Your task to perform on an android device: Open the stopwatch Image 0: 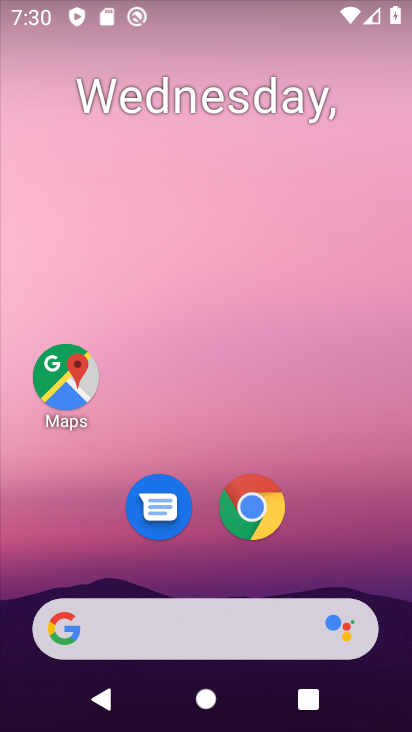
Step 0: drag from (257, 657) to (279, 157)
Your task to perform on an android device: Open the stopwatch Image 1: 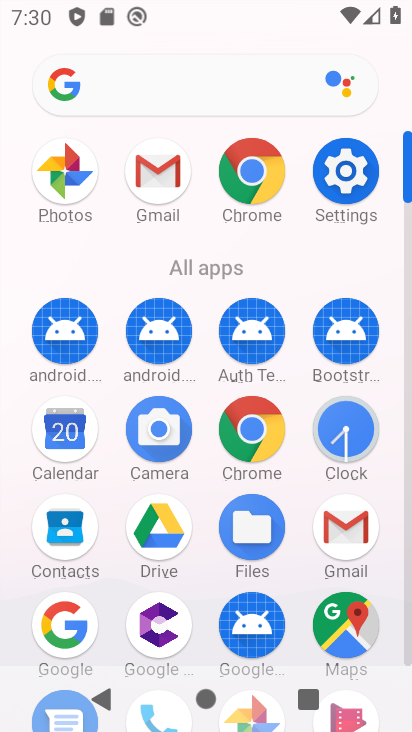
Step 1: click (332, 421)
Your task to perform on an android device: Open the stopwatch Image 2: 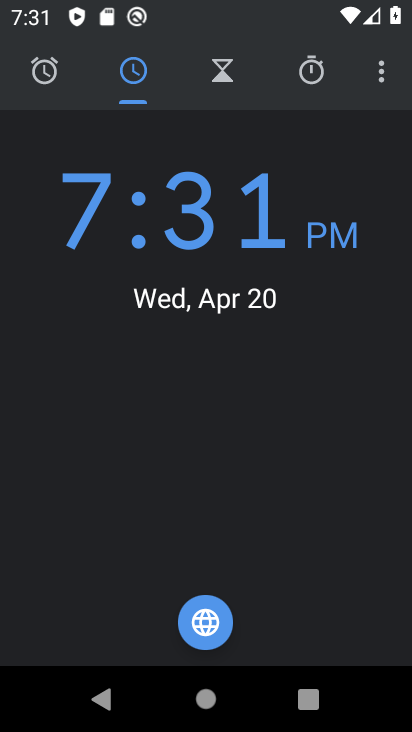
Step 2: click (309, 81)
Your task to perform on an android device: Open the stopwatch Image 3: 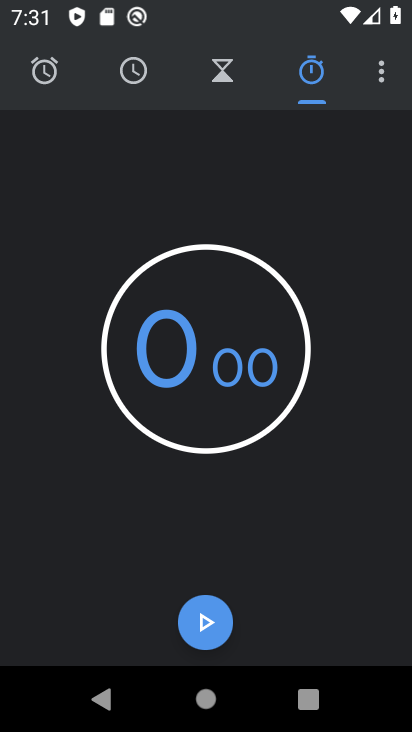
Step 3: click (195, 627)
Your task to perform on an android device: Open the stopwatch Image 4: 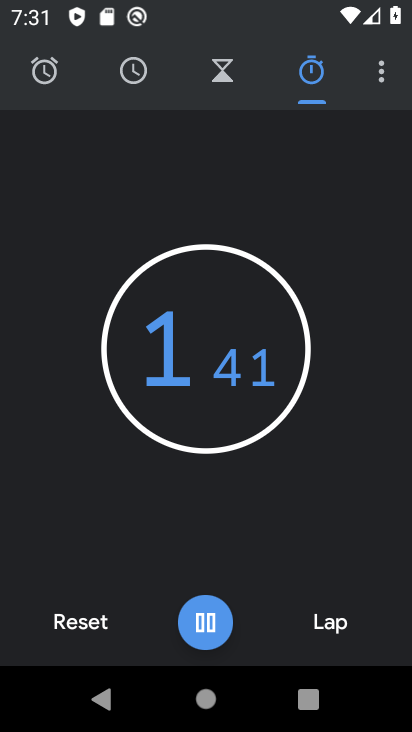
Step 4: click (211, 626)
Your task to perform on an android device: Open the stopwatch Image 5: 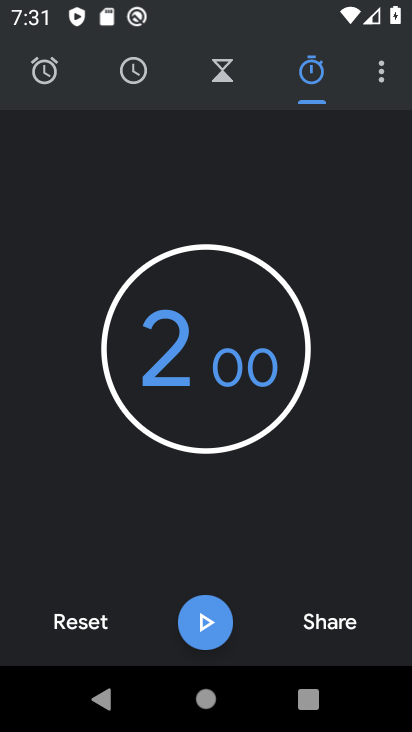
Step 5: task complete